Your task to perform on an android device: Show me popular games on the Play Store Image 0: 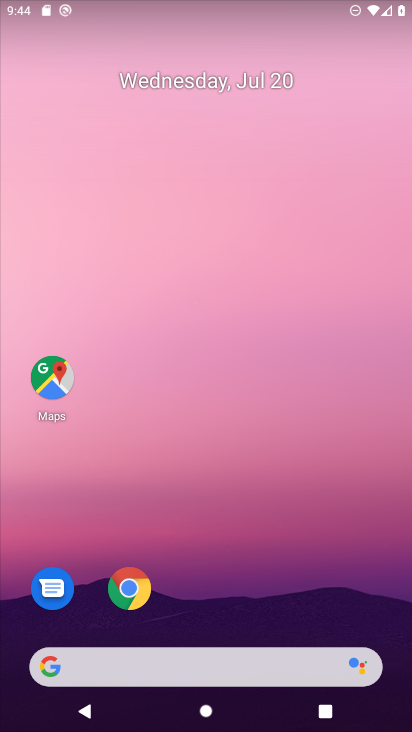
Step 0: drag from (218, 563) to (298, 33)
Your task to perform on an android device: Show me popular games on the Play Store Image 1: 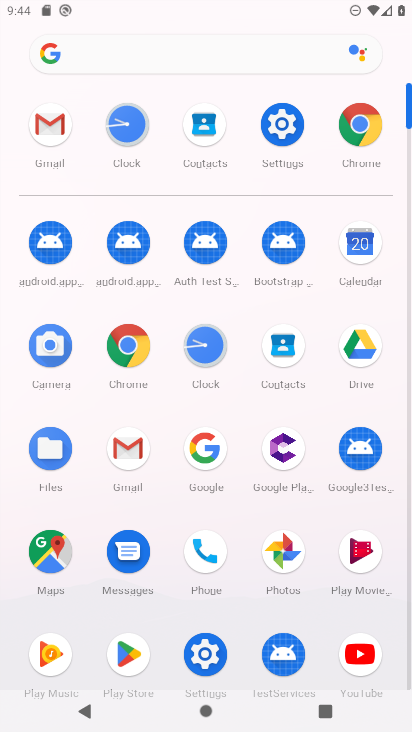
Step 1: click (138, 657)
Your task to perform on an android device: Show me popular games on the Play Store Image 2: 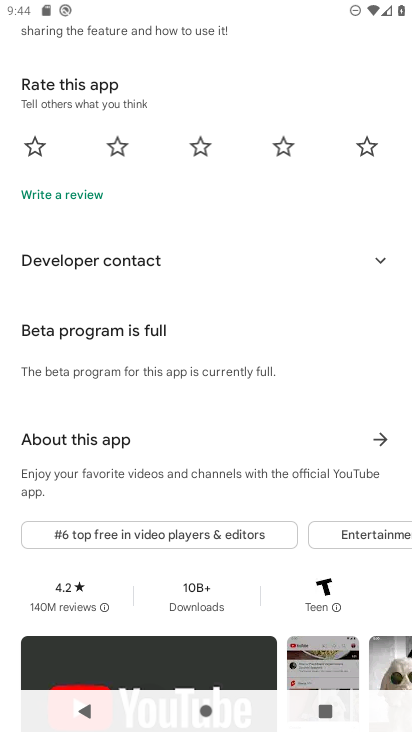
Step 2: drag from (189, 96) to (167, 516)
Your task to perform on an android device: Show me popular games on the Play Store Image 3: 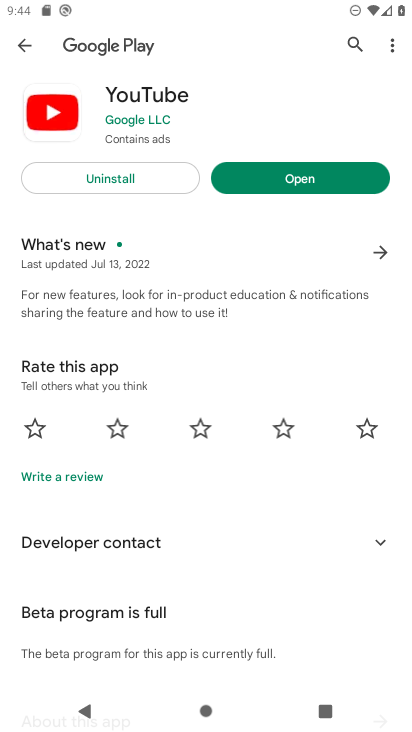
Step 3: click (31, 41)
Your task to perform on an android device: Show me popular games on the Play Store Image 4: 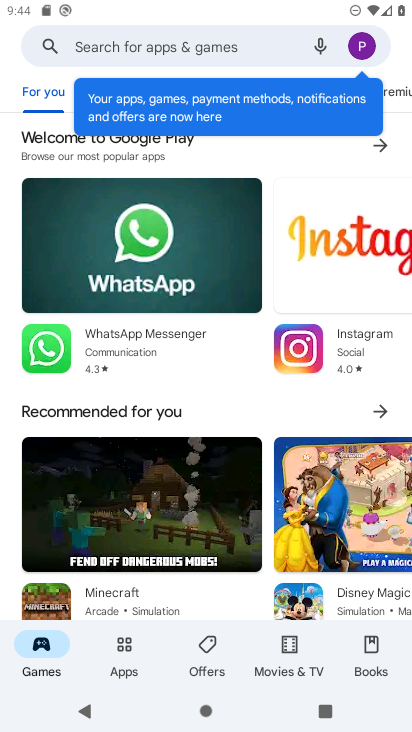
Step 4: click (73, 88)
Your task to perform on an android device: Show me popular games on the Play Store Image 5: 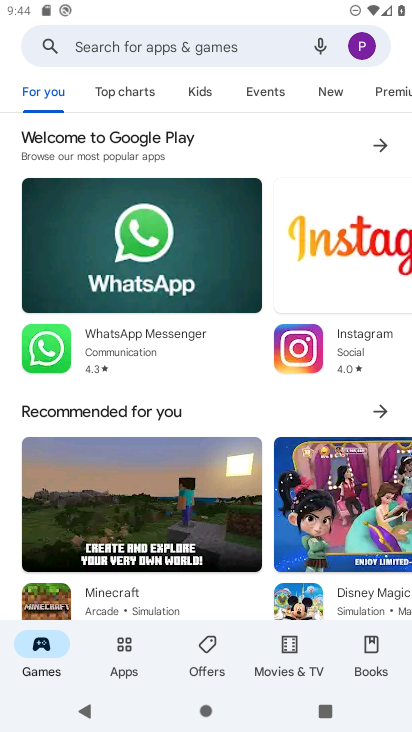
Step 5: click (129, 93)
Your task to perform on an android device: Show me popular games on the Play Store Image 6: 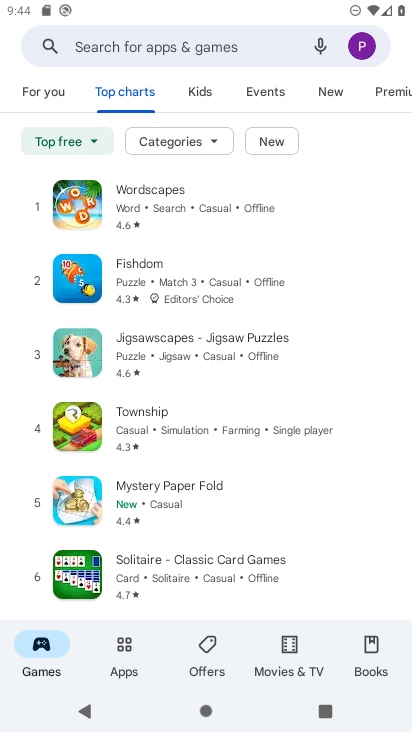
Step 6: task complete